Your task to perform on an android device: toggle pop-ups in chrome Image 0: 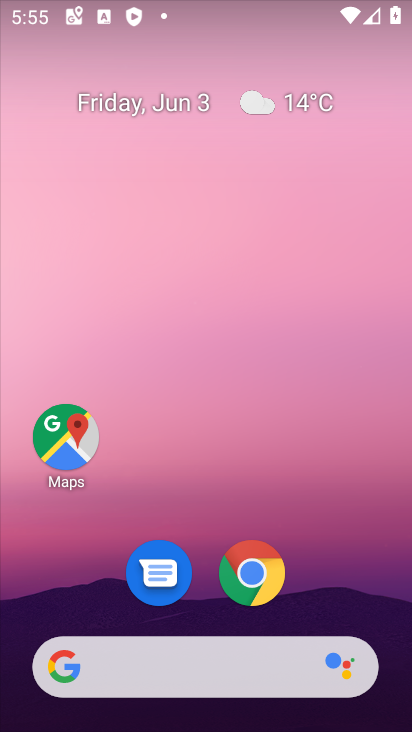
Step 0: drag from (222, 632) to (342, 9)
Your task to perform on an android device: toggle pop-ups in chrome Image 1: 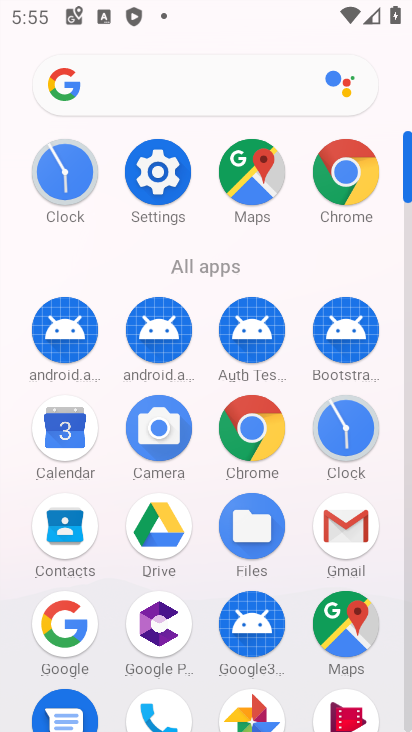
Step 1: click (258, 421)
Your task to perform on an android device: toggle pop-ups in chrome Image 2: 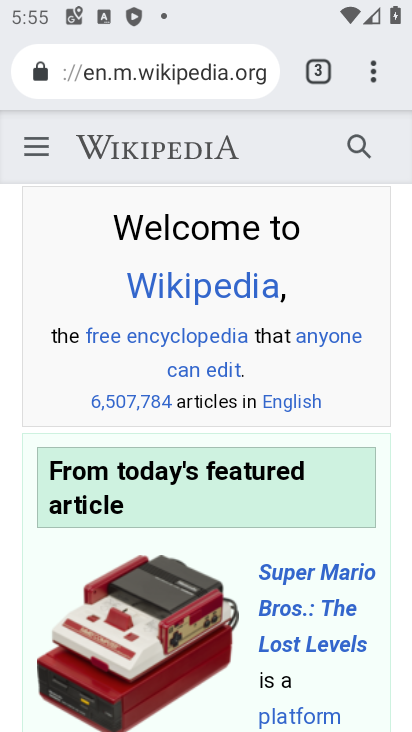
Step 2: drag from (384, 74) to (192, 518)
Your task to perform on an android device: toggle pop-ups in chrome Image 3: 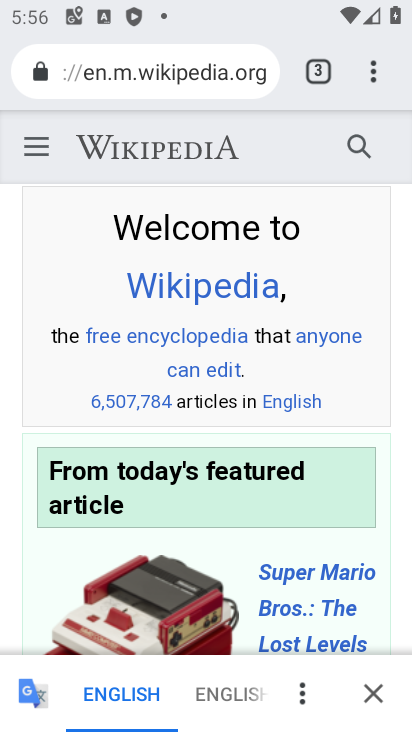
Step 3: click (159, 593)
Your task to perform on an android device: toggle pop-ups in chrome Image 4: 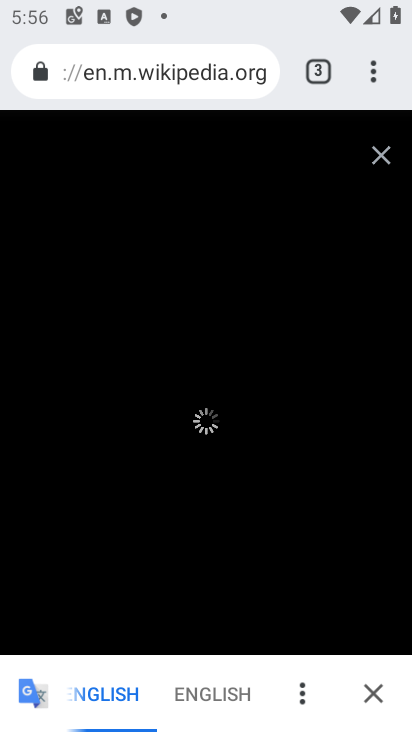
Step 4: press home button
Your task to perform on an android device: toggle pop-ups in chrome Image 5: 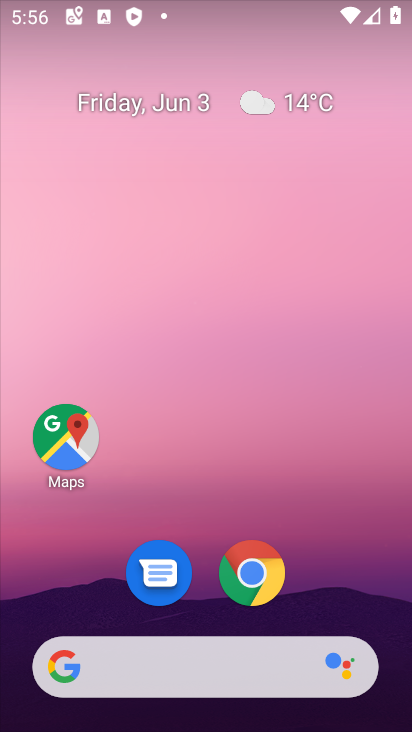
Step 5: drag from (332, 665) to (263, 10)
Your task to perform on an android device: toggle pop-ups in chrome Image 6: 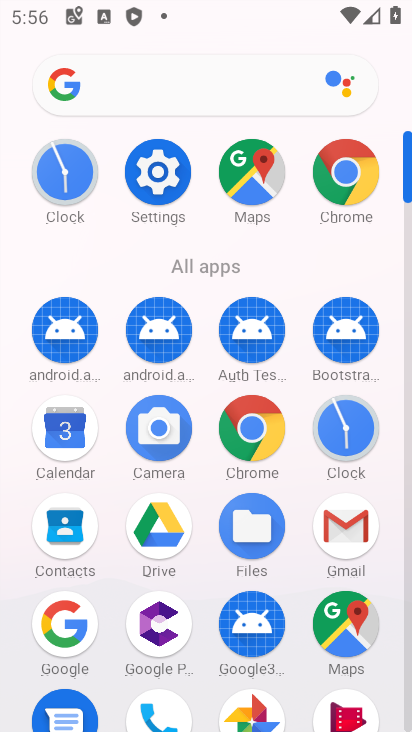
Step 6: click (247, 417)
Your task to perform on an android device: toggle pop-ups in chrome Image 7: 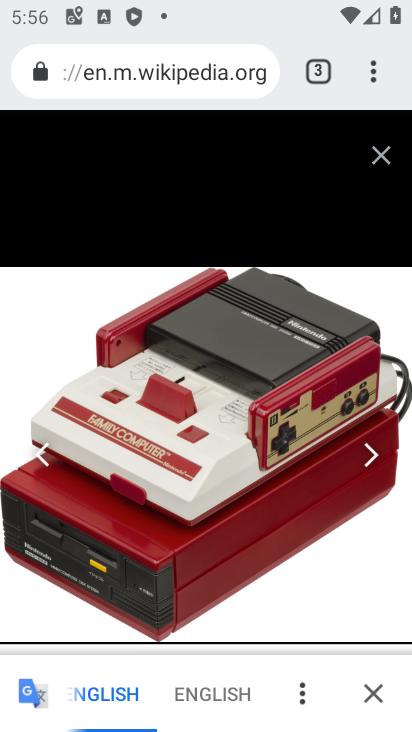
Step 7: drag from (375, 64) to (156, 586)
Your task to perform on an android device: toggle pop-ups in chrome Image 8: 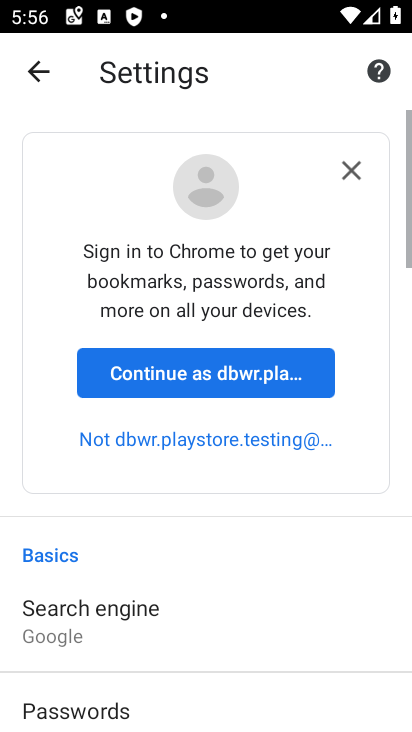
Step 8: drag from (196, 661) to (187, 236)
Your task to perform on an android device: toggle pop-ups in chrome Image 9: 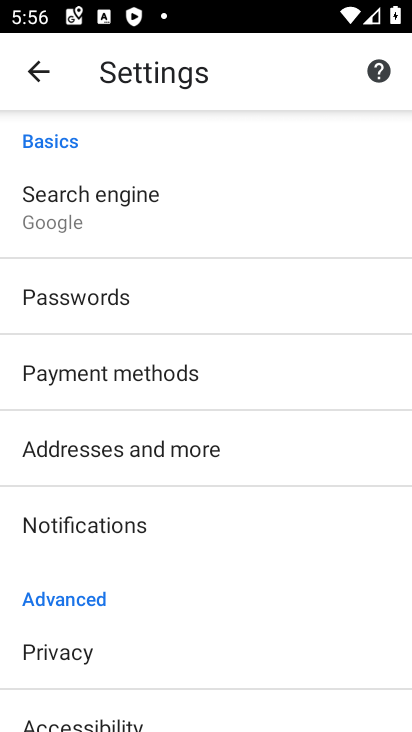
Step 9: drag from (174, 643) to (233, 189)
Your task to perform on an android device: toggle pop-ups in chrome Image 10: 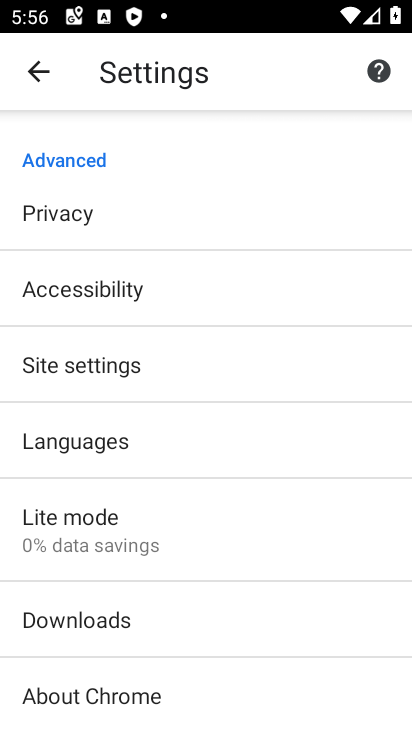
Step 10: click (131, 353)
Your task to perform on an android device: toggle pop-ups in chrome Image 11: 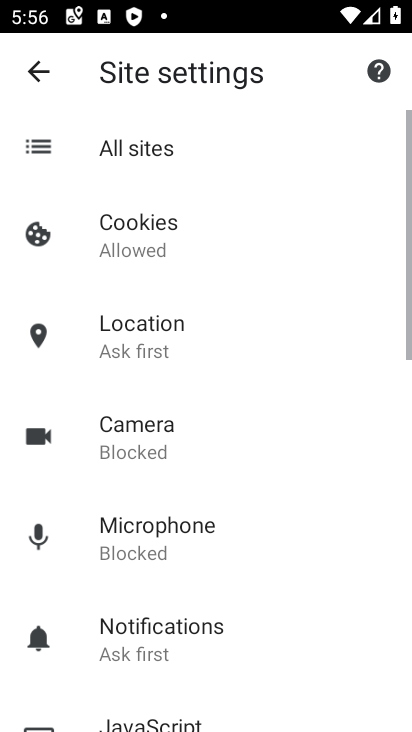
Step 11: drag from (195, 719) to (243, 294)
Your task to perform on an android device: toggle pop-ups in chrome Image 12: 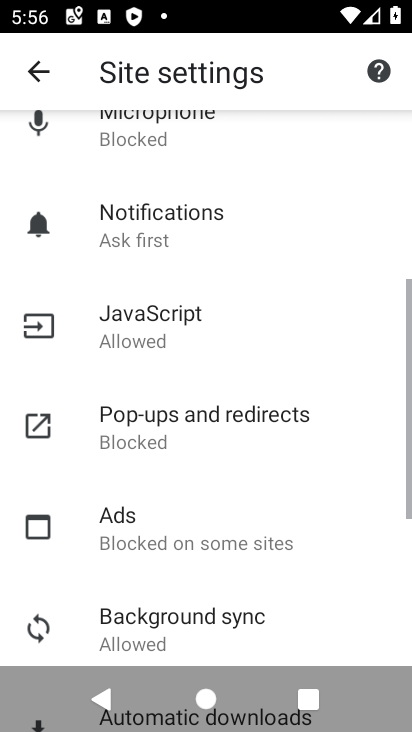
Step 12: click (201, 407)
Your task to perform on an android device: toggle pop-ups in chrome Image 13: 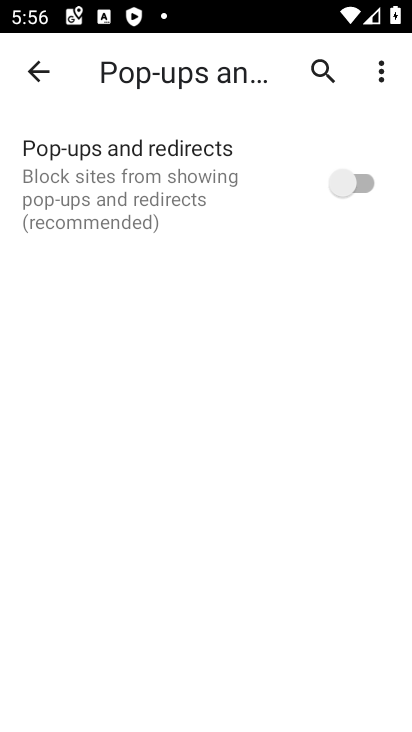
Step 13: click (372, 181)
Your task to perform on an android device: toggle pop-ups in chrome Image 14: 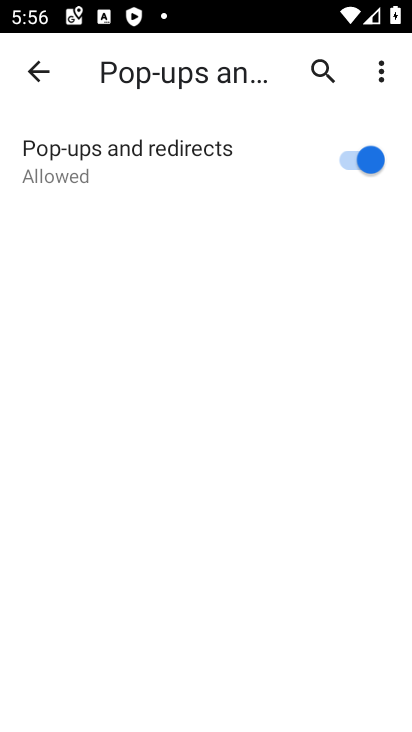
Step 14: task complete